Your task to perform on an android device: Open Google Chrome and click the shortcut for Amazon.com Image 0: 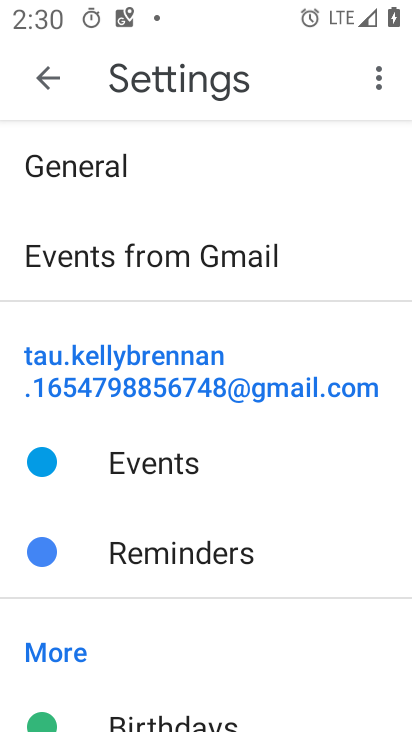
Step 0: press home button
Your task to perform on an android device: Open Google Chrome and click the shortcut for Amazon.com Image 1: 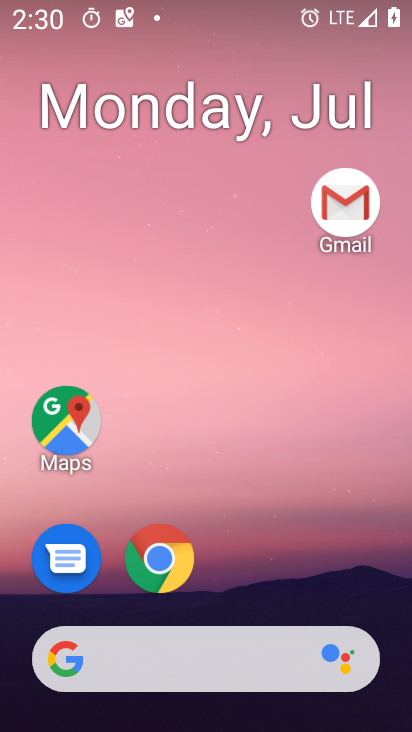
Step 1: drag from (332, 576) to (329, 133)
Your task to perform on an android device: Open Google Chrome and click the shortcut for Amazon.com Image 2: 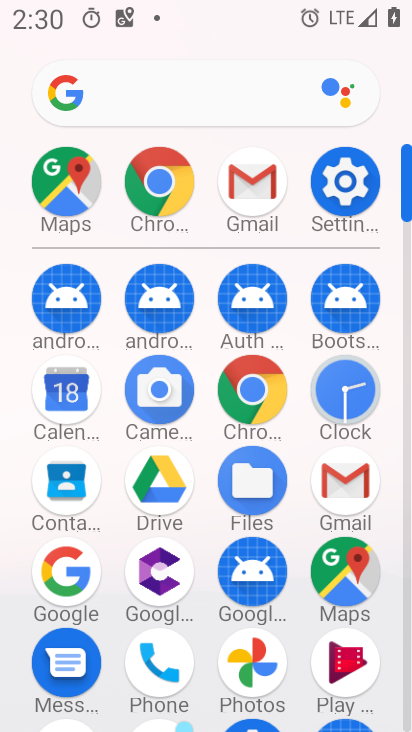
Step 2: click (265, 396)
Your task to perform on an android device: Open Google Chrome and click the shortcut for Amazon.com Image 3: 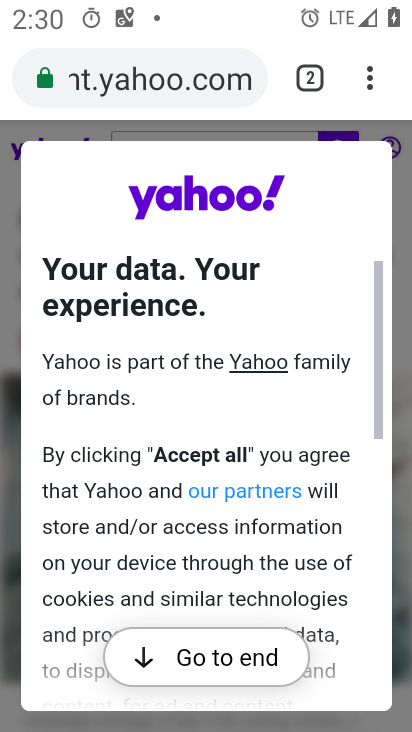
Step 3: press back button
Your task to perform on an android device: Open Google Chrome and click the shortcut for Amazon.com Image 4: 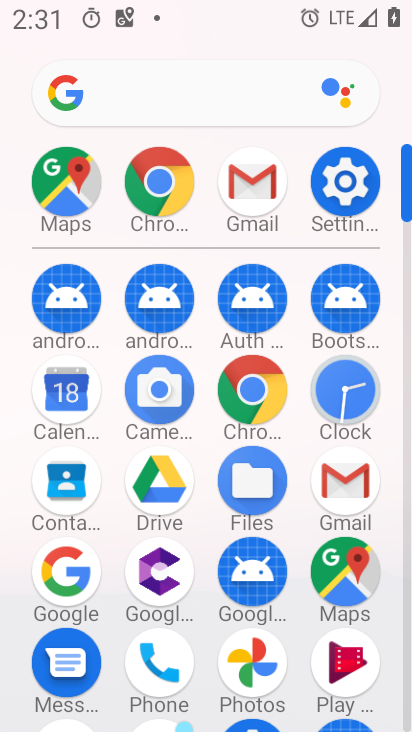
Step 4: click (254, 385)
Your task to perform on an android device: Open Google Chrome and click the shortcut for Amazon.com Image 5: 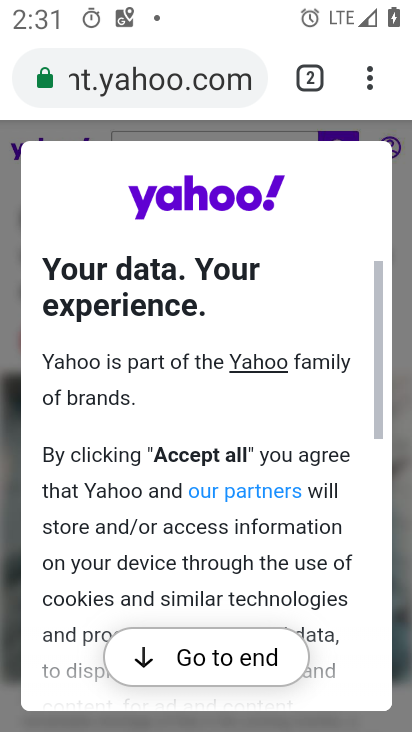
Step 5: press back button
Your task to perform on an android device: Open Google Chrome and click the shortcut for Amazon.com Image 6: 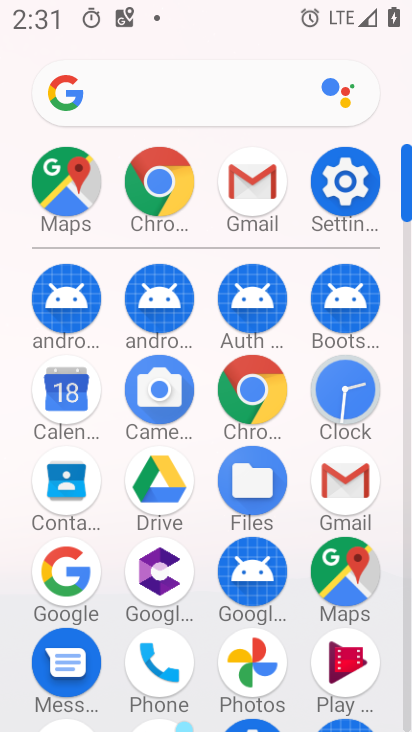
Step 6: click (271, 395)
Your task to perform on an android device: Open Google Chrome and click the shortcut for Amazon.com Image 7: 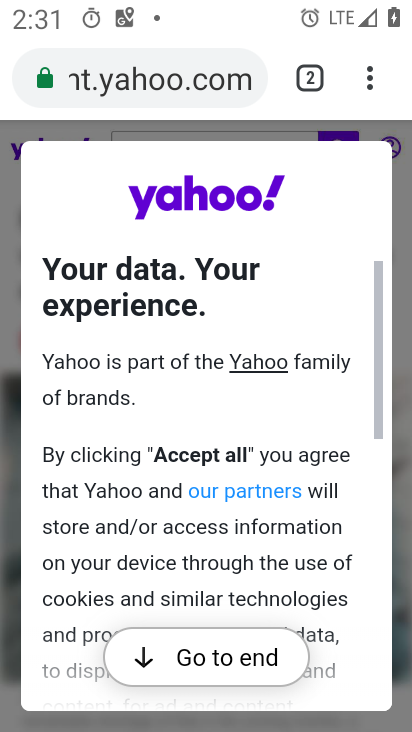
Step 7: task complete